Your task to perform on an android device: Check the news Image 0: 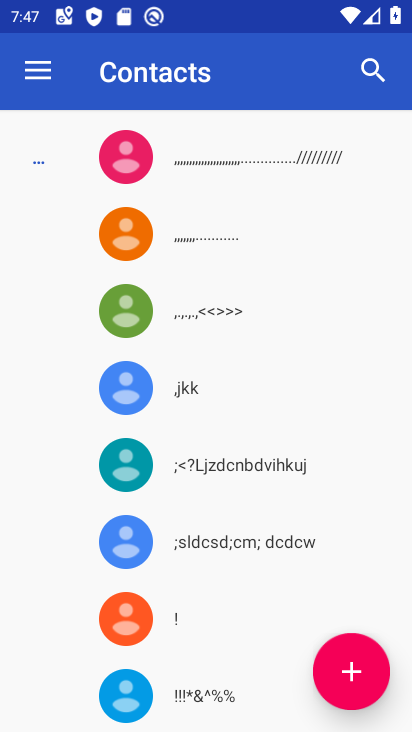
Step 0: press home button
Your task to perform on an android device: Check the news Image 1: 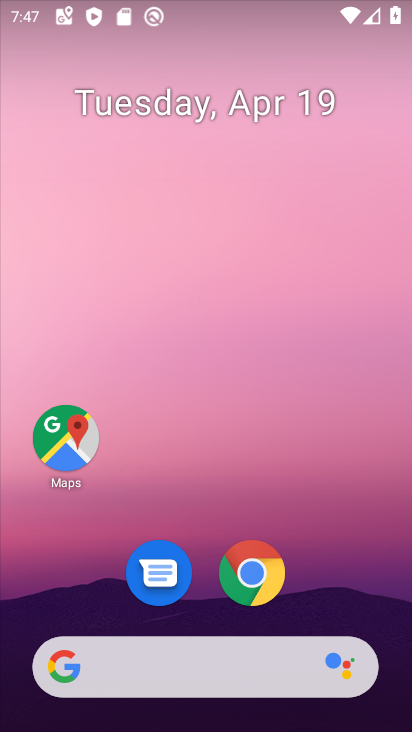
Step 1: drag from (251, 705) to (385, 146)
Your task to perform on an android device: Check the news Image 2: 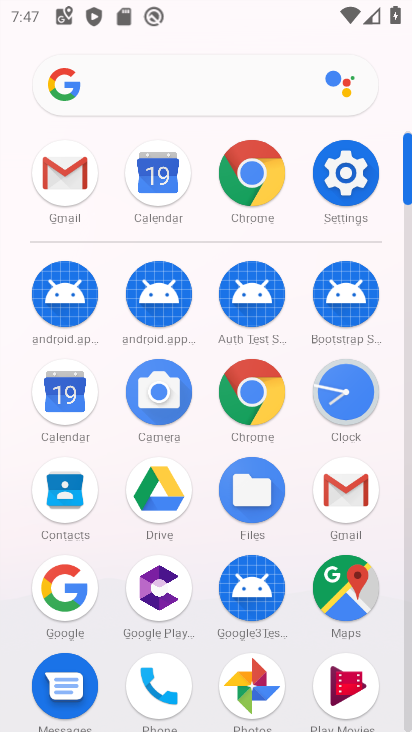
Step 2: click (72, 85)
Your task to perform on an android device: Check the news Image 3: 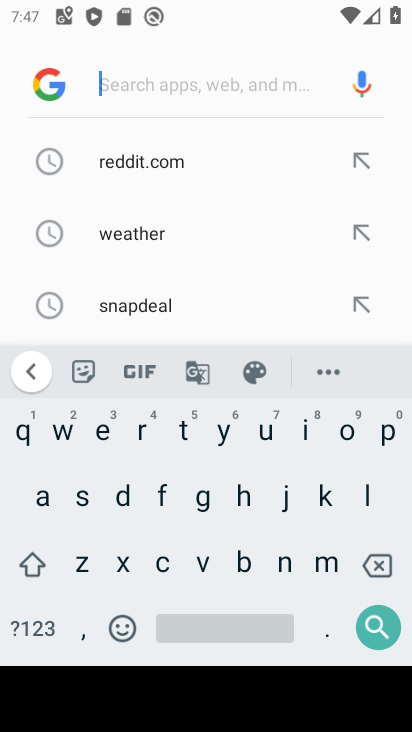
Step 3: click (54, 86)
Your task to perform on an android device: Check the news Image 4: 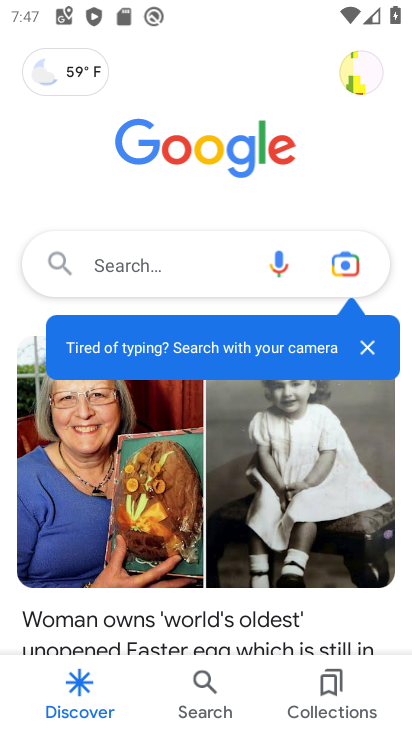
Step 4: task complete